Your task to perform on an android device: find which apps use the phone's location Image 0: 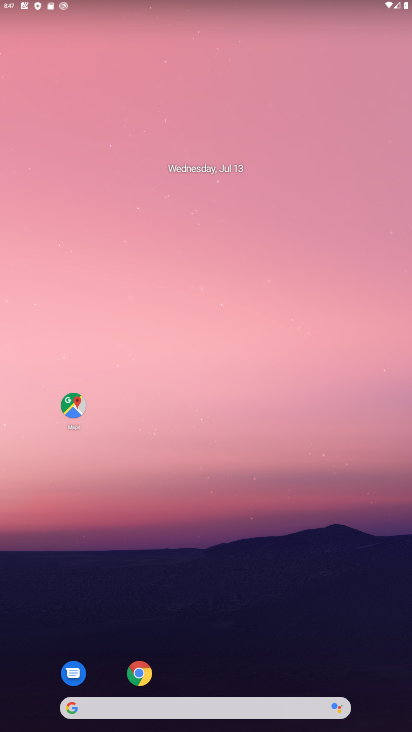
Step 0: drag from (202, 645) to (214, 5)
Your task to perform on an android device: find which apps use the phone's location Image 1: 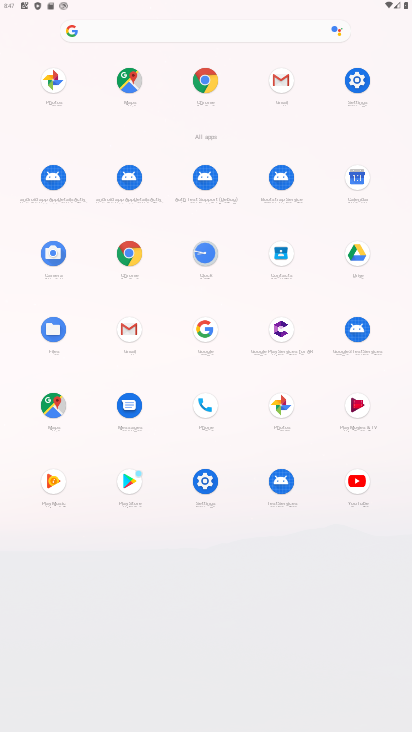
Step 1: click (358, 74)
Your task to perform on an android device: find which apps use the phone's location Image 2: 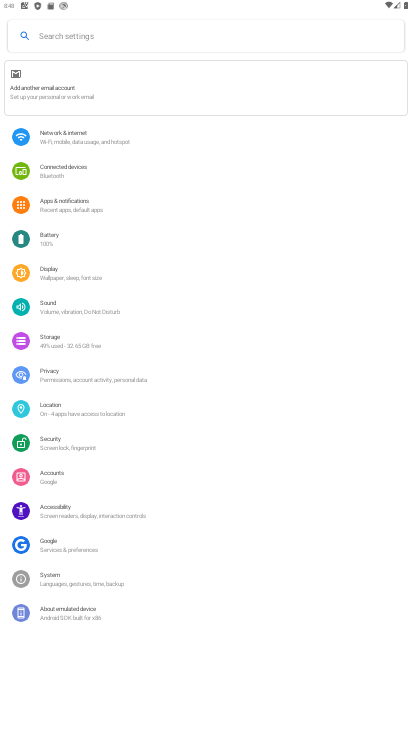
Step 2: click (92, 405)
Your task to perform on an android device: find which apps use the phone's location Image 3: 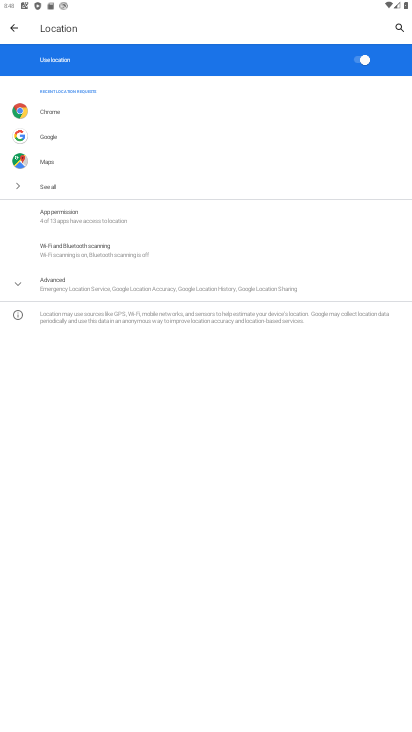
Step 3: click (82, 181)
Your task to perform on an android device: find which apps use the phone's location Image 4: 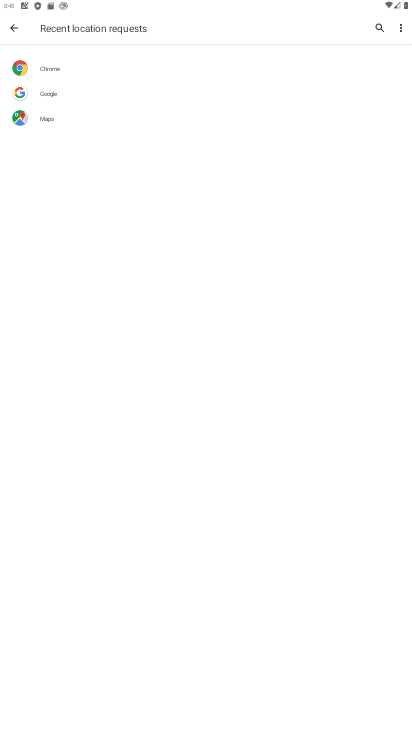
Step 4: task complete